Your task to perform on an android device: When is my next meeting? Image 0: 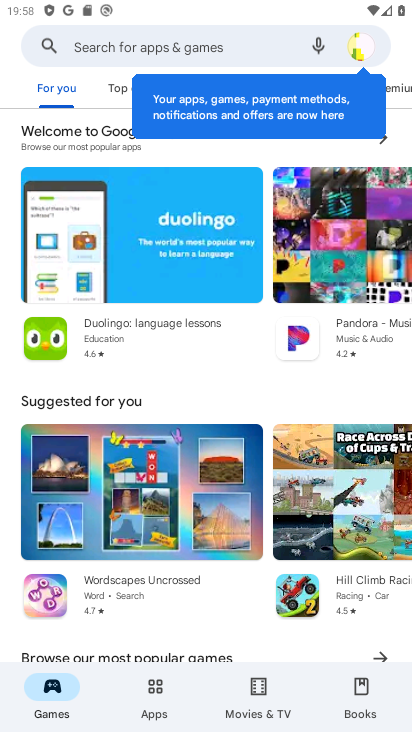
Step 0: press home button
Your task to perform on an android device: When is my next meeting? Image 1: 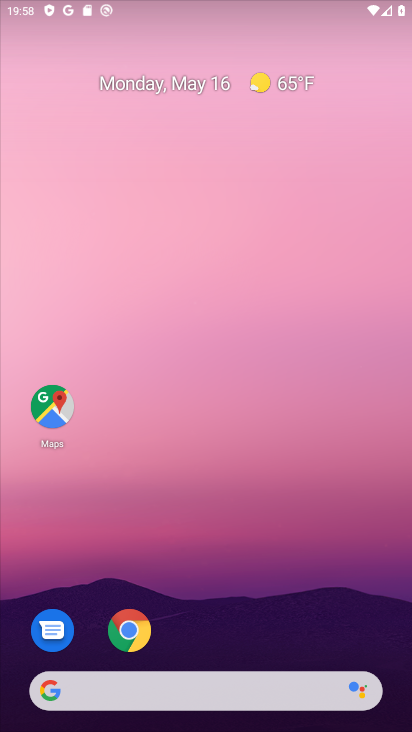
Step 1: drag from (195, 640) to (179, 114)
Your task to perform on an android device: When is my next meeting? Image 2: 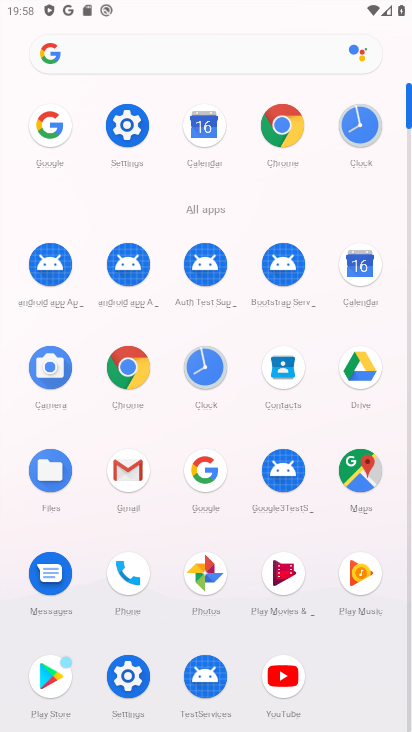
Step 2: click (199, 131)
Your task to perform on an android device: When is my next meeting? Image 3: 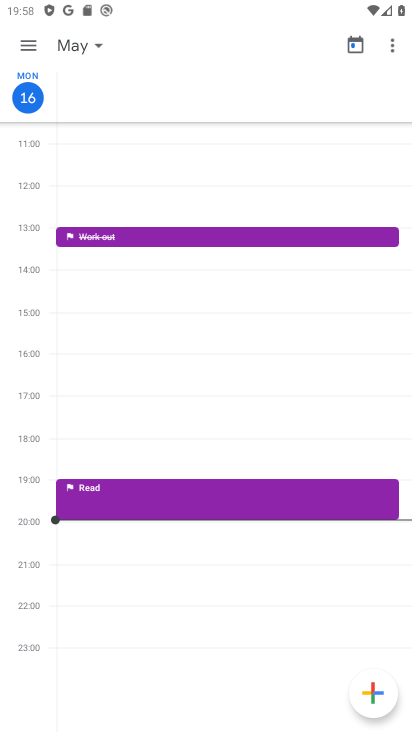
Step 3: click (91, 47)
Your task to perform on an android device: When is my next meeting? Image 4: 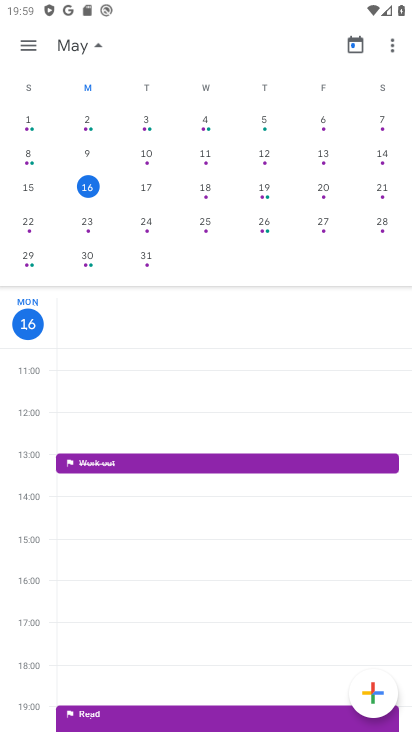
Step 4: click (33, 44)
Your task to perform on an android device: When is my next meeting? Image 5: 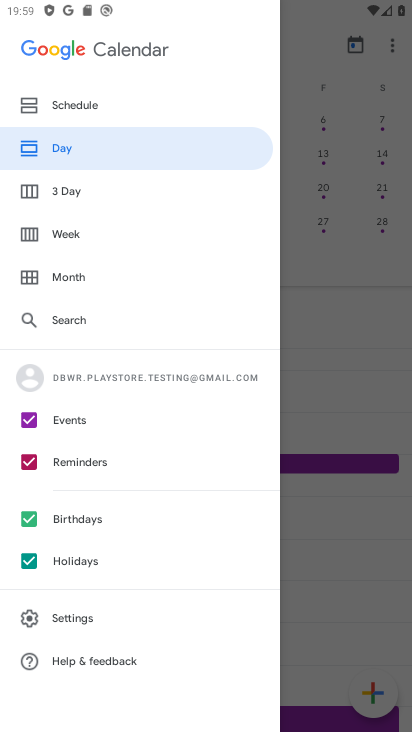
Step 5: click (81, 95)
Your task to perform on an android device: When is my next meeting? Image 6: 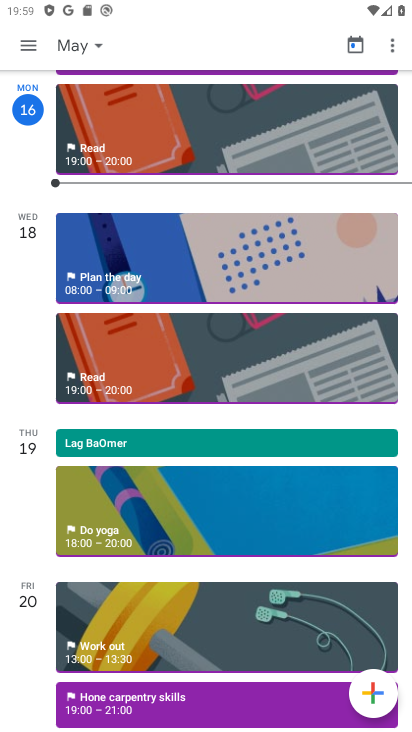
Step 6: task complete